Your task to perform on an android device: turn on wifi Image 0: 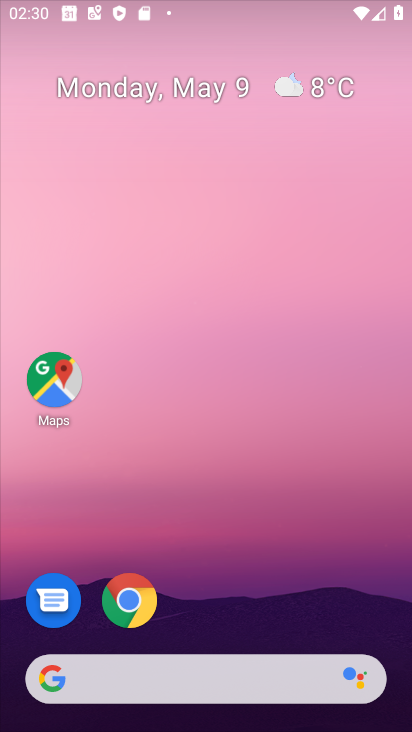
Step 0: drag from (215, 621) to (248, 104)
Your task to perform on an android device: turn on wifi Image 1: 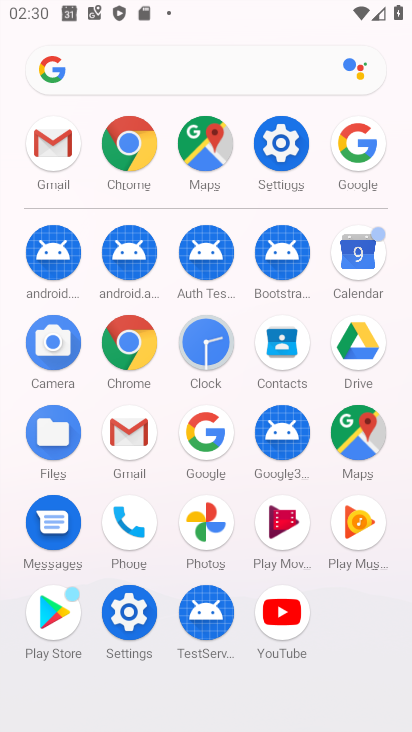
Step 1: click (279, 145)
Your task to perform on an android device: turn on wifi Image 2: 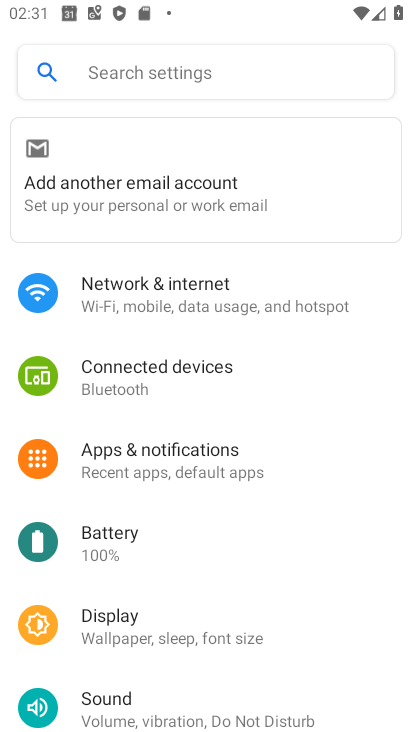
Step 2: click (242, 280)
Your task to perform on an android device: turn on wifi Image 3: 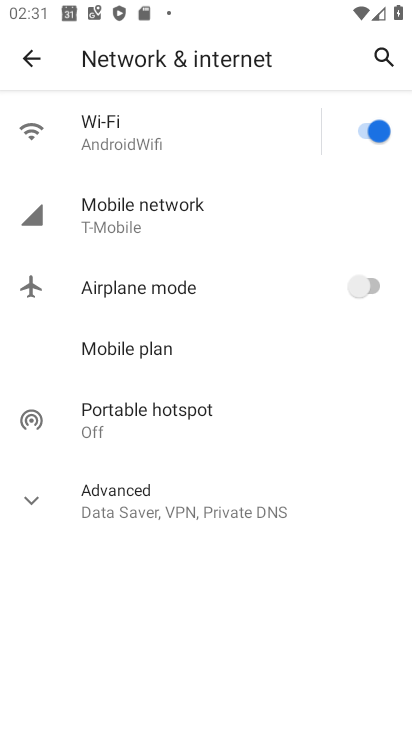
Step 3: task complete